Your task to perform on an android device: turn smart compose on in the gmail app Image 0: 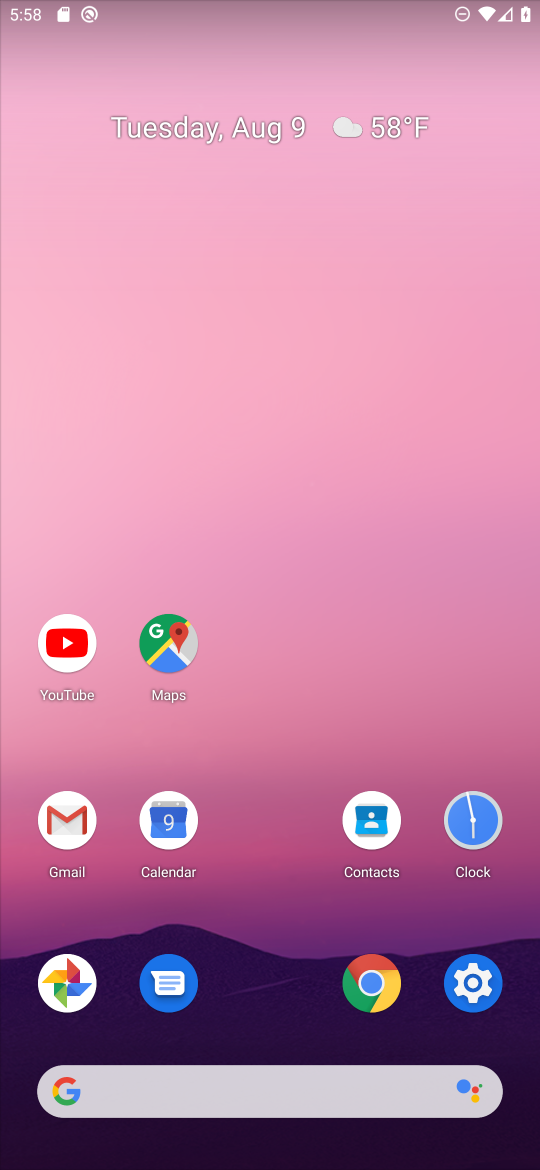
Step 0: click (64, 812)
Your task to perform on an android device: turn smart compose on in the gmail app Image 1: 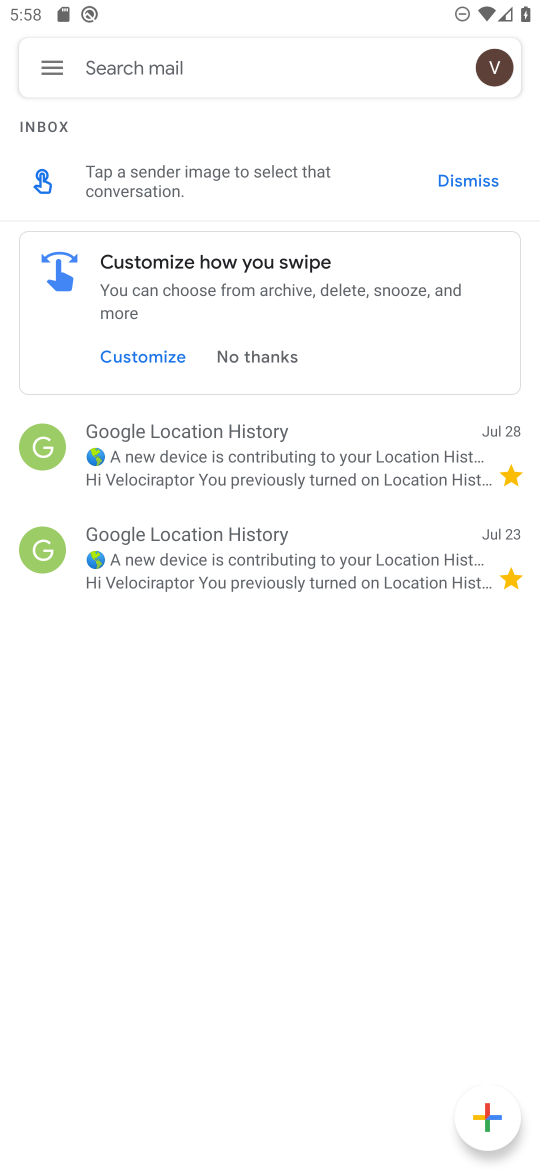
Step 1: click (45, 61)
Your task to perform on an android device: turn smart compose on in the gmail app Image 2: 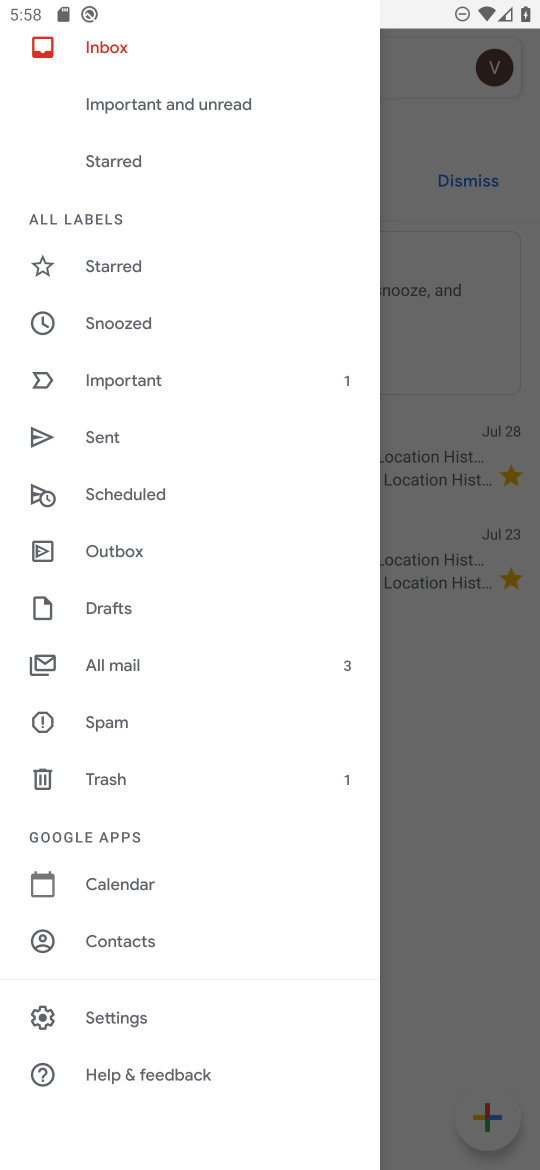
Step 2: click (118, 1009)
Your task to perform on an android device: turn smart compose on in the gmail app Image 3: 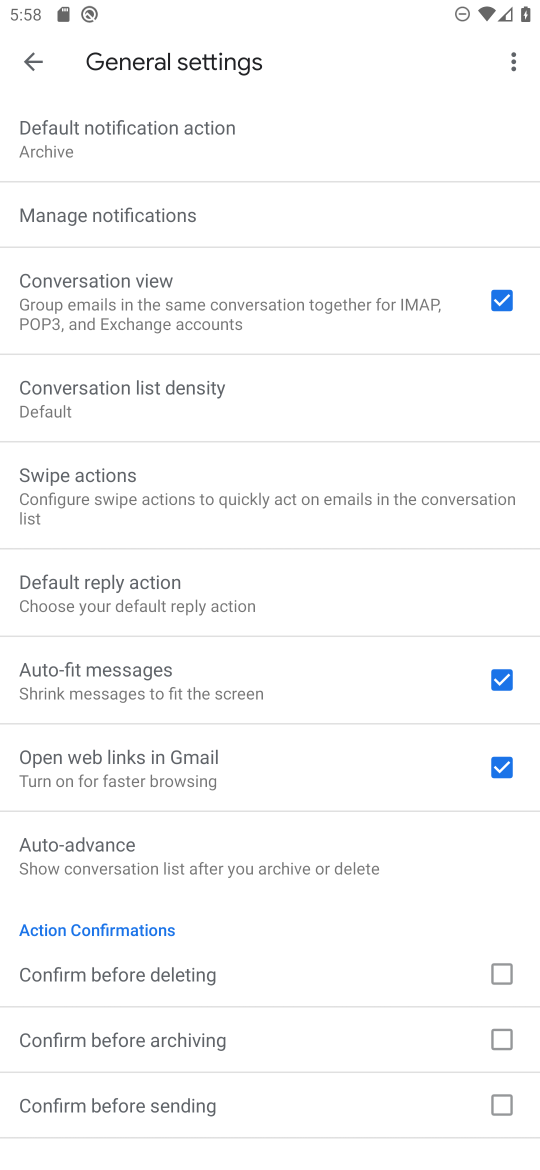
Step 3: click (37, 49)
Your task to perform on an android device: turn smart compose on in the gmail app Image 4: 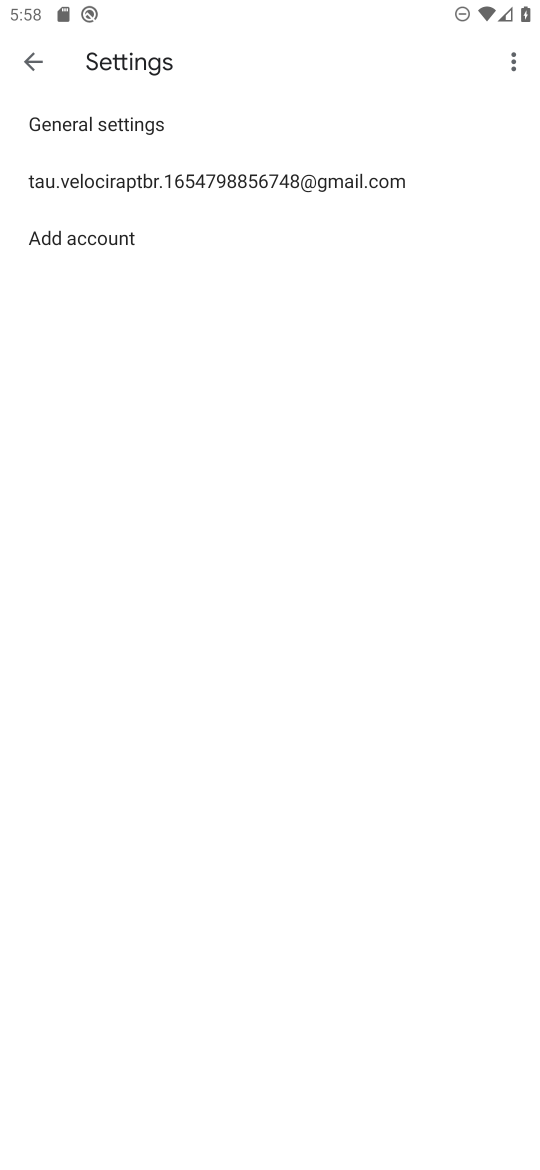
Step 4: click (125, 177)
Your task to perform on an android device: turn smart compose on in the gmail app Image 5: 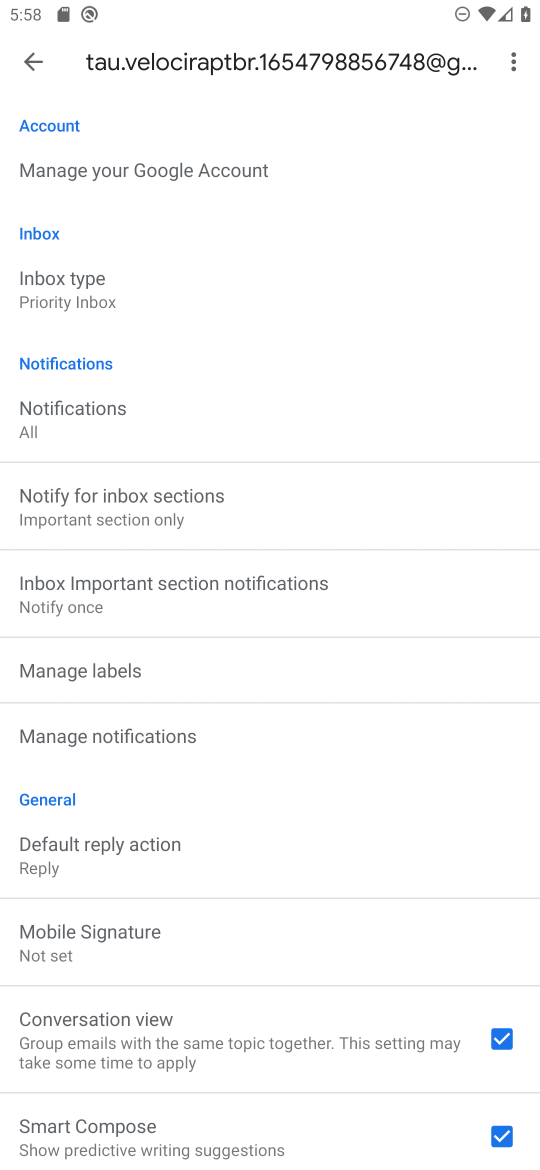
Step 5: task complete